Your task to perform on an android device: turn on wifi Image 0: 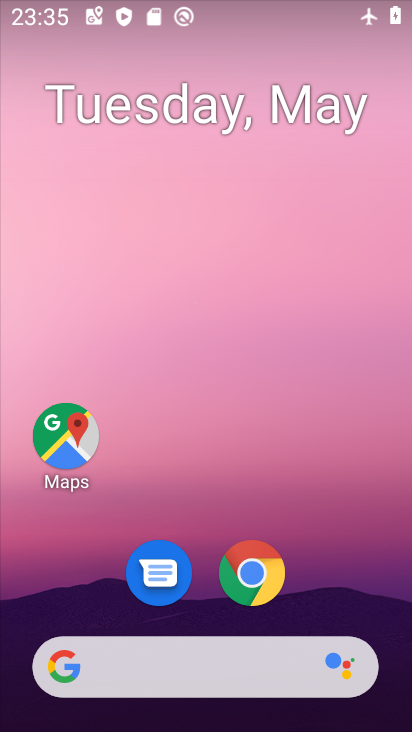
Step 0: drag from (336, 543) to (313, 263)
Your task to perform on an android device: turn on wifi Image 1: 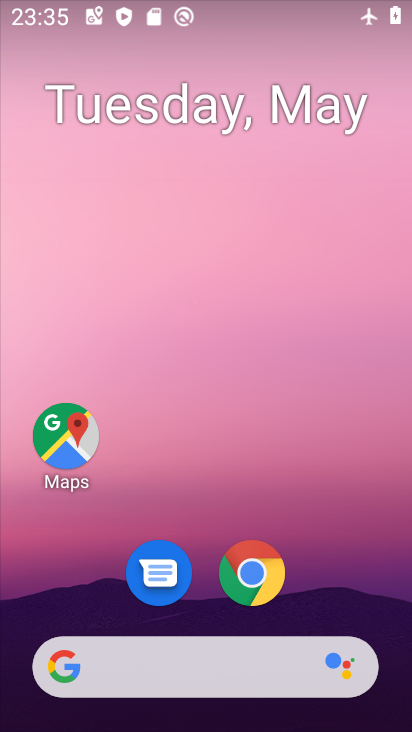
Step 1: drag from (342, 521) to (349, 276)
Your task to perform on an android device: turn on wifi Image 2: 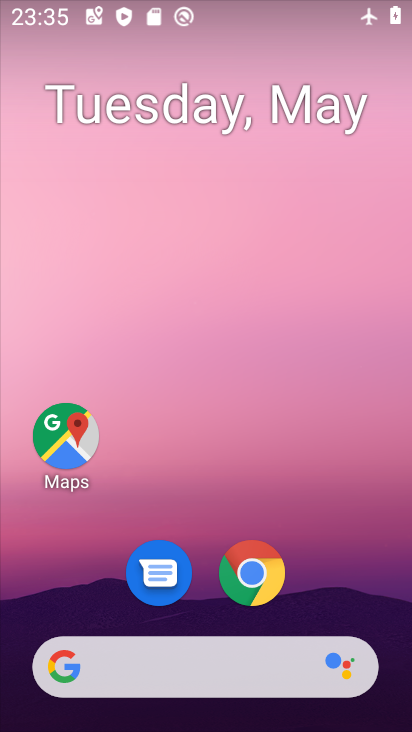
Step 2: drag from (316, 579) to (325, 219)
Your task to perform on an android device: turn on wifi Image 3: 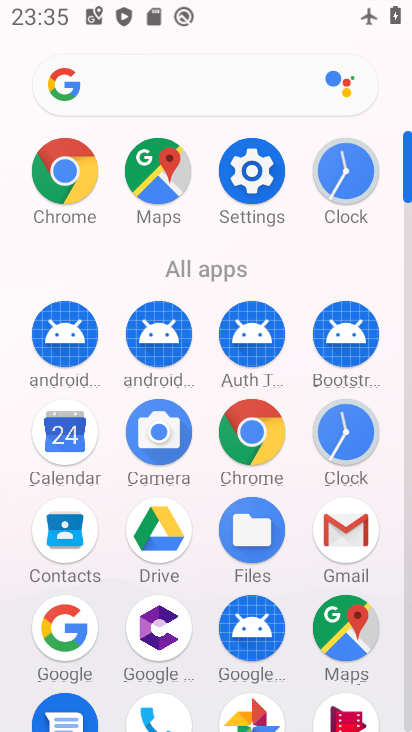
Step 3: click (254, 177)
Your task to perform on an android device: turn on wifi Image 4: 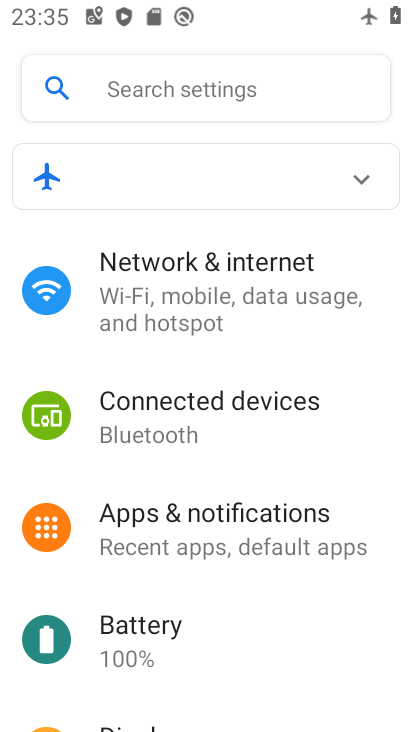
Step 4: click (214, 309)
Your task to perform on an android device: turn on wifi Image 5: 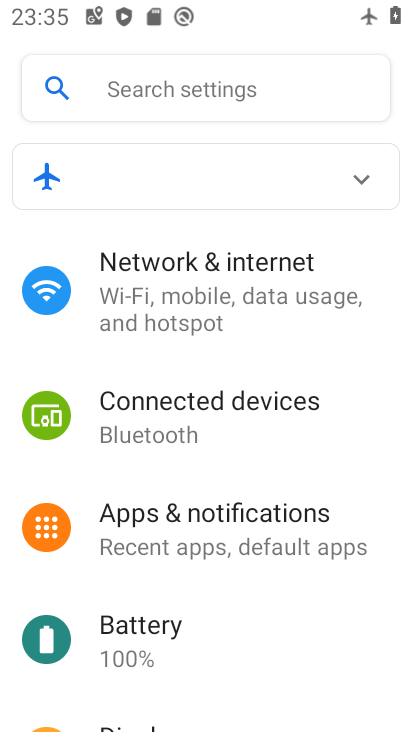
Step 5: click (182, 291)
Your task to perform on an android device: turn on wifi Image 6: 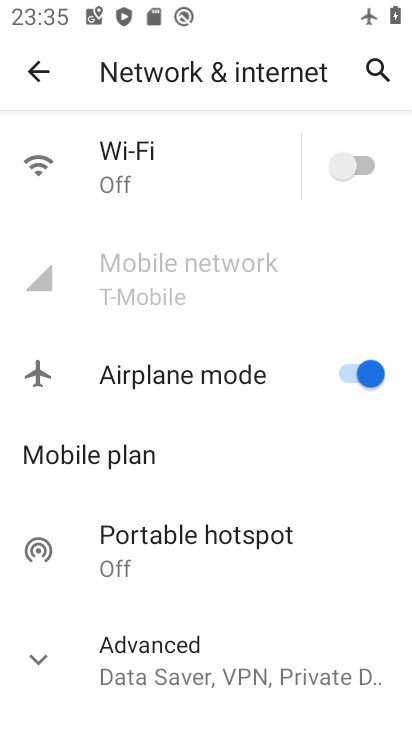
Step 6: click (331, 167)
Your task to perform on an android device: turn on wifi Image 7: 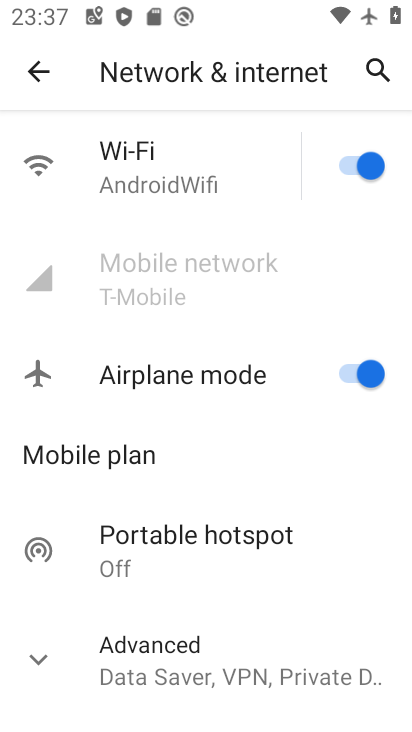
Step 7: task complete